Your task to perform on an android device: Go to battery settings Image 0: 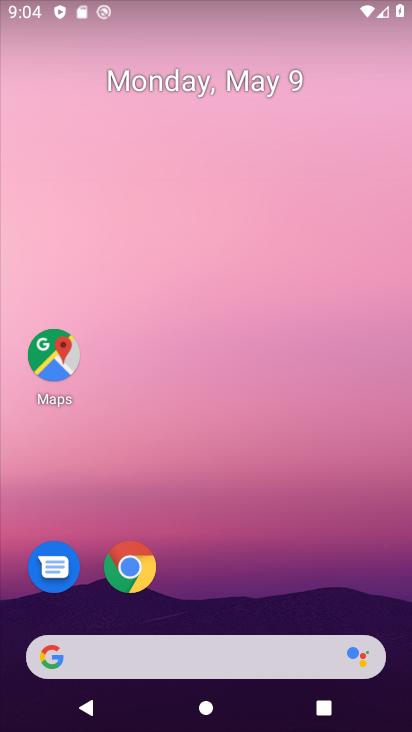
Step 0: click (141, 566)
Your task to perform on an android device: Go to battery settings Image 1: 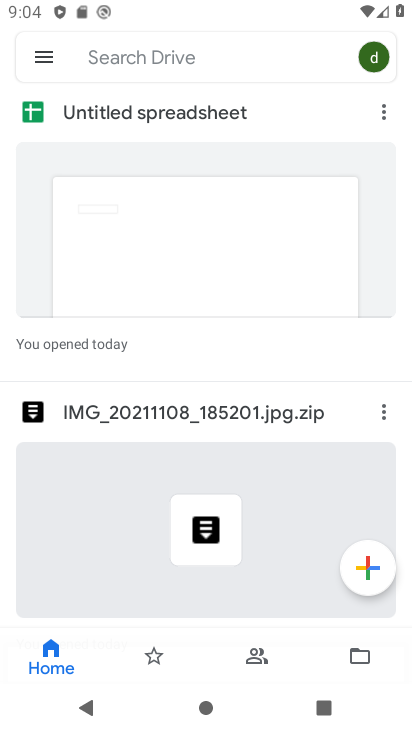
Step 1: press back button
Your task to perform on an android device: Go to battery settings Image 2: 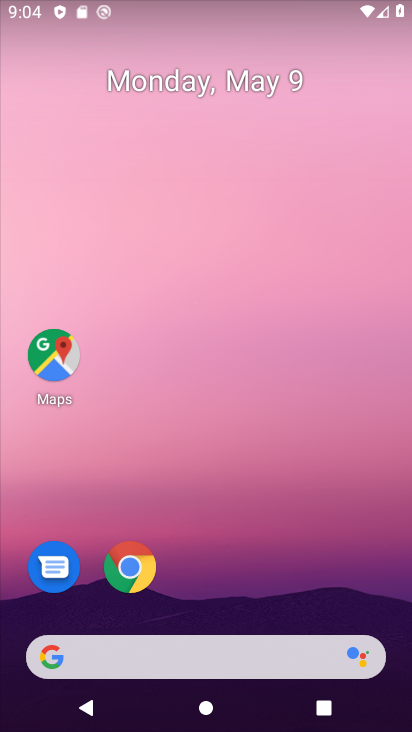
Step 2: drag from (268, 649) to (198, 142)
Your task to perform on an android device: Go to battery settings Image 3: 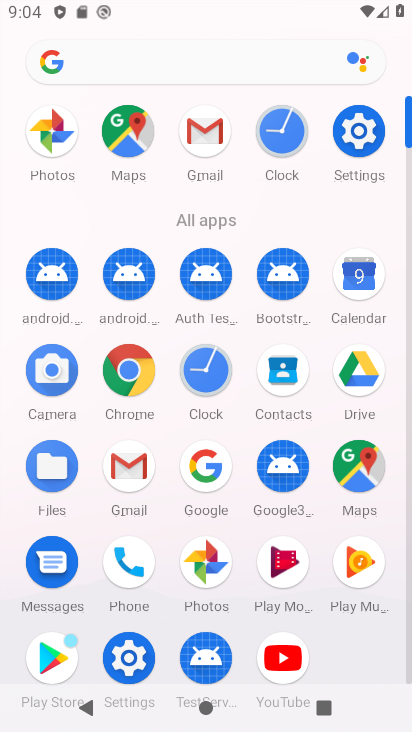
Step 3: click (375, 117)
Your task to perform on an android device: Go to battery settings Image 4: 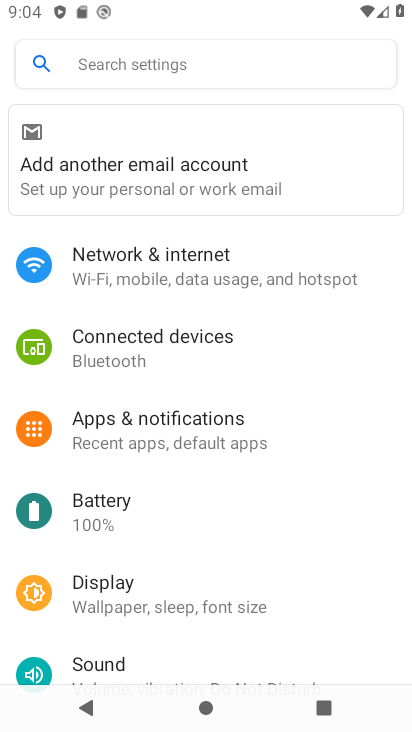
Step 4: click (151, 500)
Your task to perform on an android device: Go to battery settings Image 5: 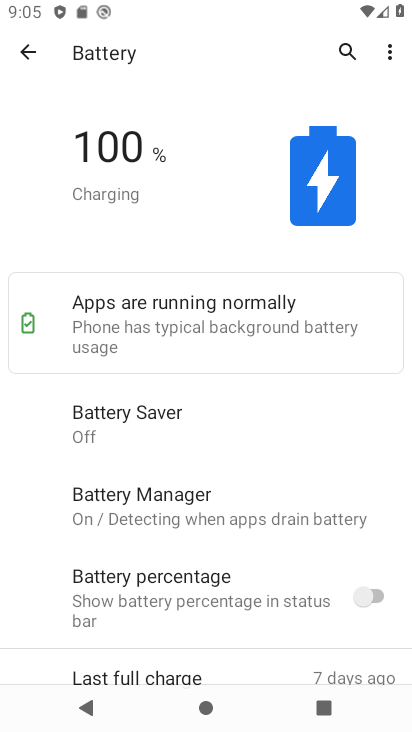
Step 5: task complete